Your task to perform on an android device: Go to calendar. Show me events next week Image 0: 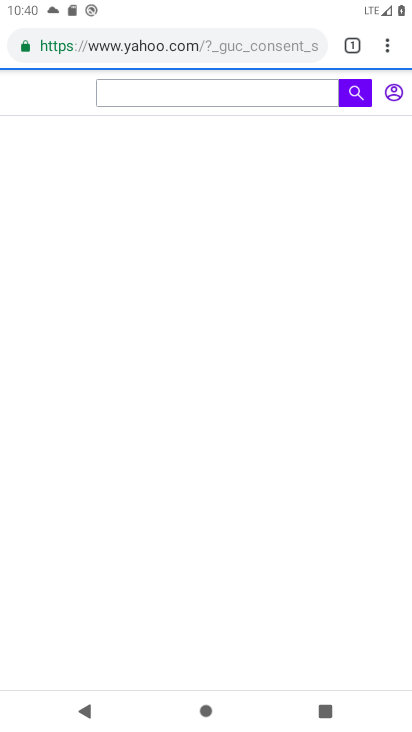
Step 0: press home button
Your task to perform on an android device: Go to calendar. Show me events next week Image 1: 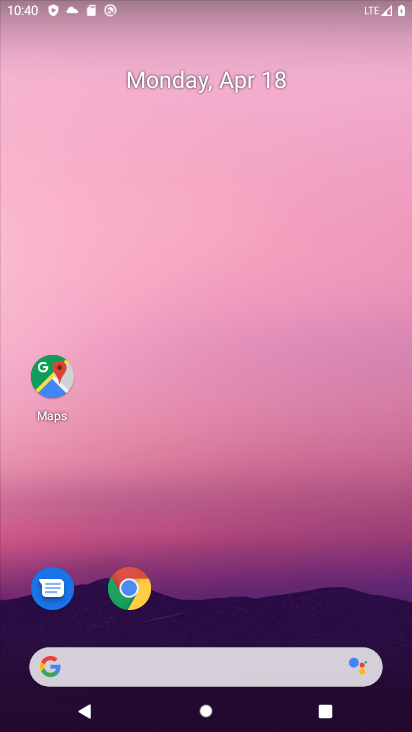
Step 1: drag from (388, 625) to (396, 11)
Your task to perform on an android device: Go to calendar. Show me events next week Image 2: 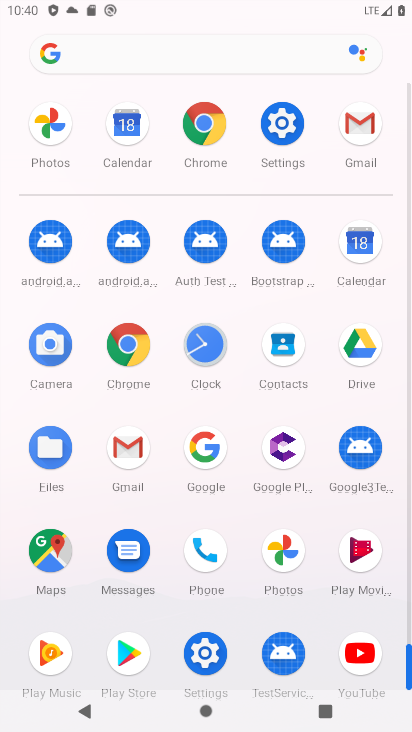
Step 2: click (355, 240)
Your task to perform on an android device: Go to calendar. Show me events next week Image 3: 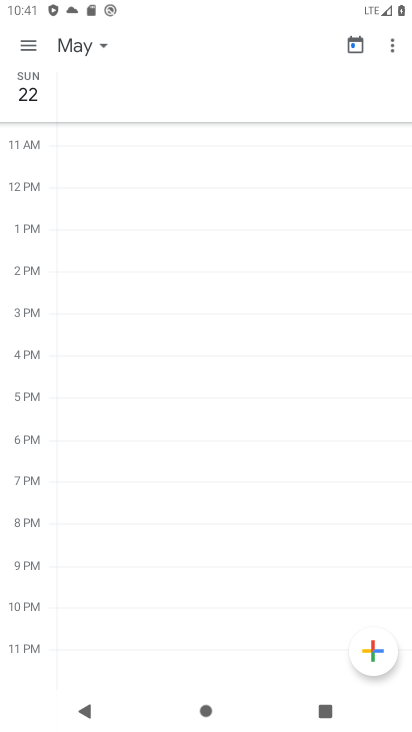
Step 3: click (22, 38)
Your task to perform on an android device: Go to calendar. Show me events next week Image 4: 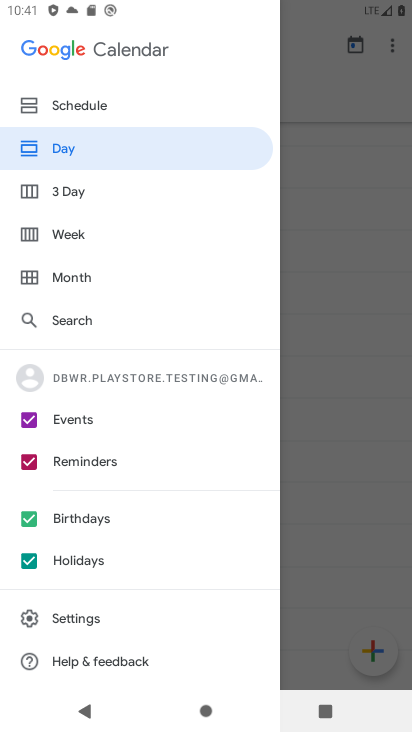
Step 4: click (69, 232)
Your task to perform on an android device: Go to calendar. Show me events next week Image 5: 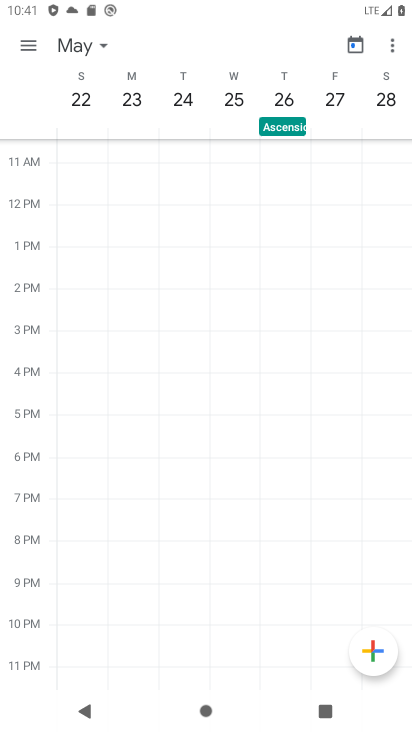
Step 5: task complete